Your task to perform on an android device: Go to accessibility settings Image 0: 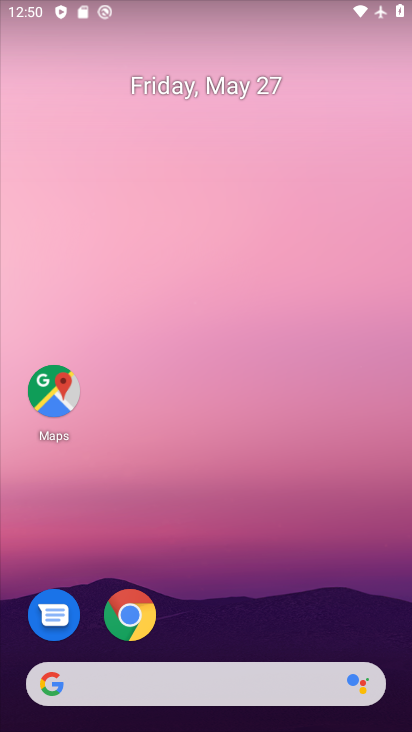
Step 0: press home button
Your task to perform on an android device: Go to accessibility settings Image 1: 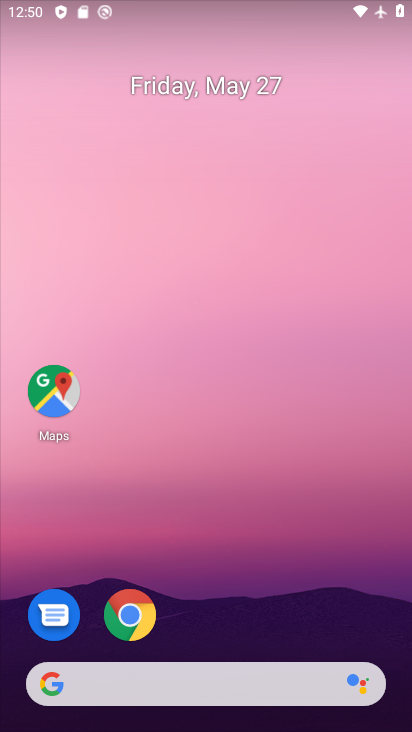
Step 1: drag from (291, 611) to (296, 46)
Your task to perform on an android device: Go to accessibility settings Image 2: 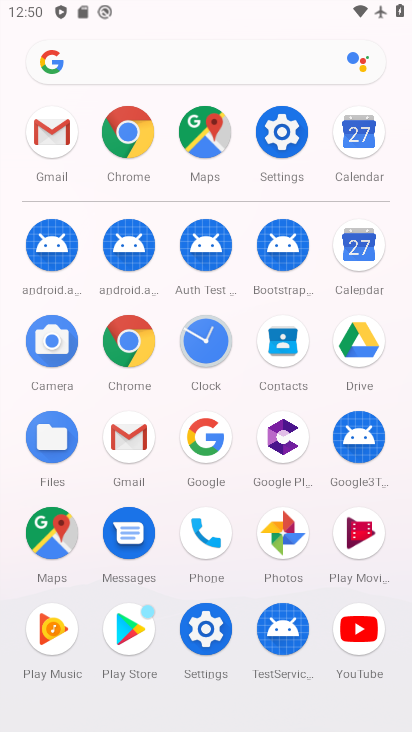
Step 2: click (286, 123)
Your task to perform on an android device: Go to accessibility settings Image 3: 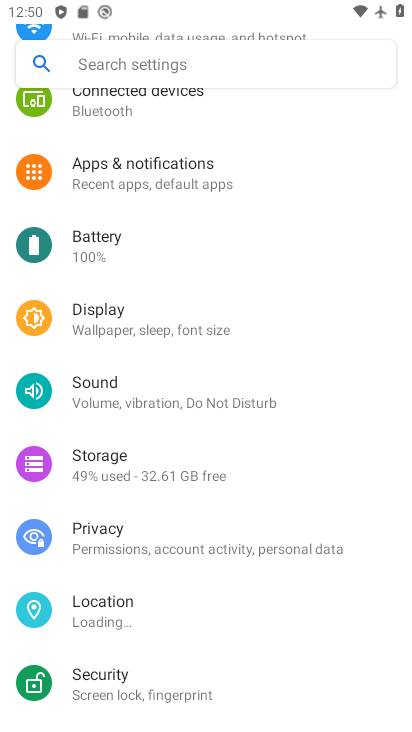
Step 3: drag from (264, 644) to (271, 102)
Your task to perform on an android device: Go to accessibility settings Image 4: 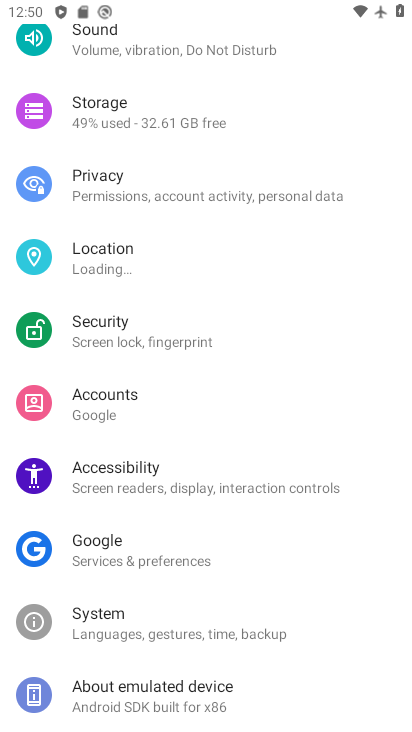
Step 4: click (108, 469)
Your task to perform on an android device: Go to accessibility settings Image 5: 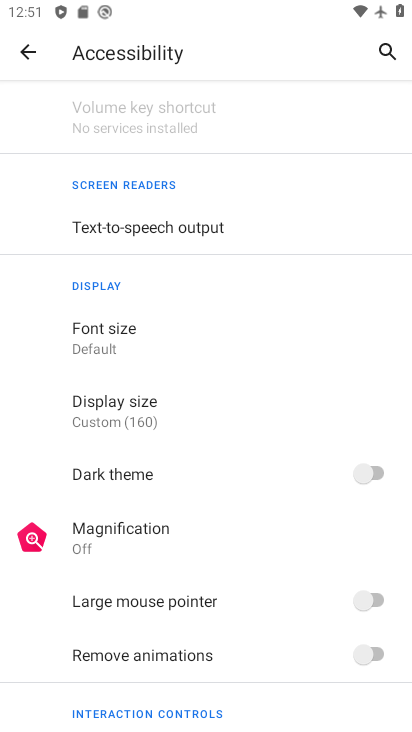
Step 5: task complete